Your task to perform on an android device: Check the weather Image 0: 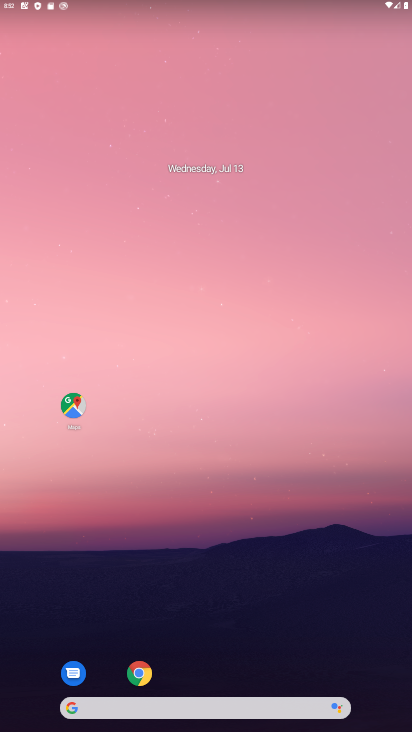
Step 0: click (178, 714)
Your task to perform on an android device: Check the weather Image 1: 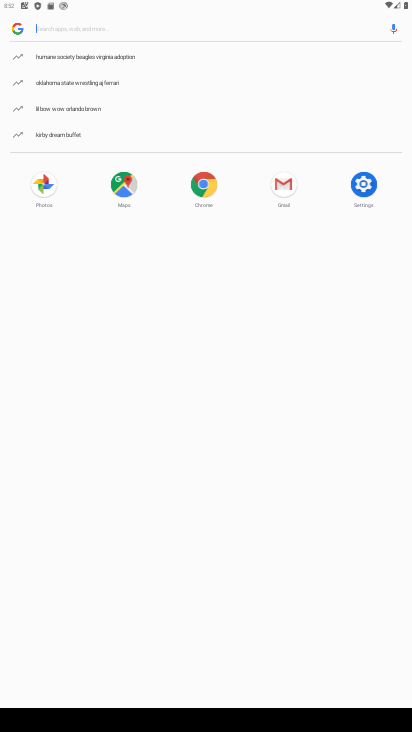
Step 1: click (231, 708)
Your task to perform on an android device: Check the weather Image 2: 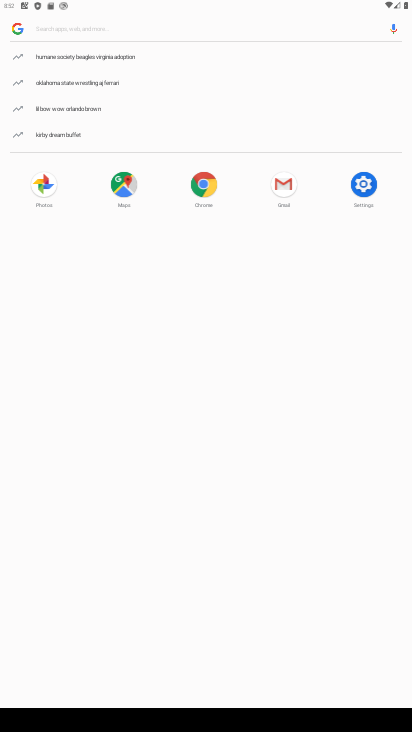
Step 2: type "weather"
Your task to perform on an android device: Check the weather Image 3: 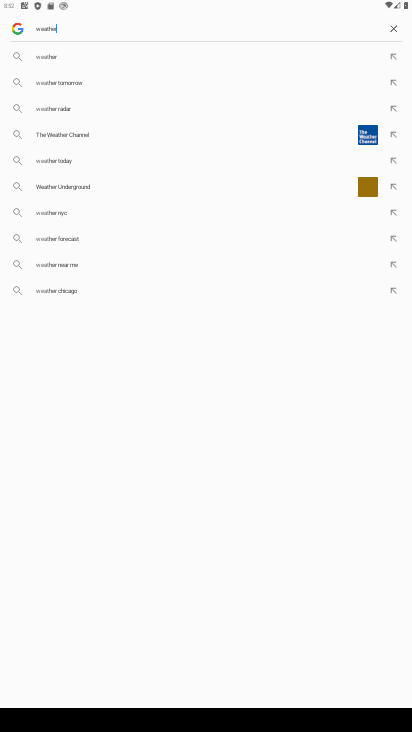
Step 3: type ""
Your task to perform on an android device: Check the weather Image 4: 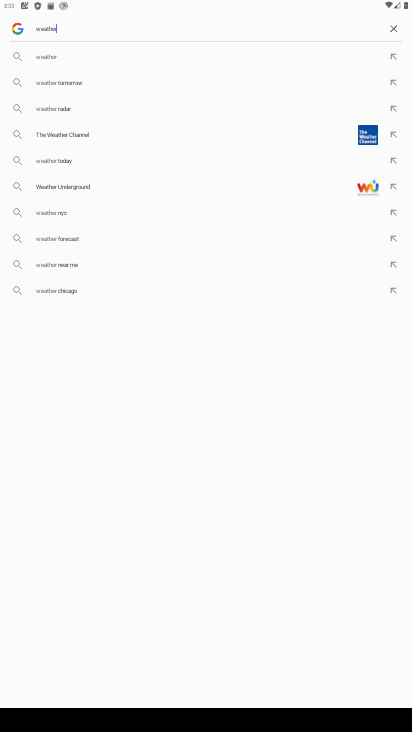
Step 4: click (59, 60)
Your task to perform on an android device: Check the weather Image 5: 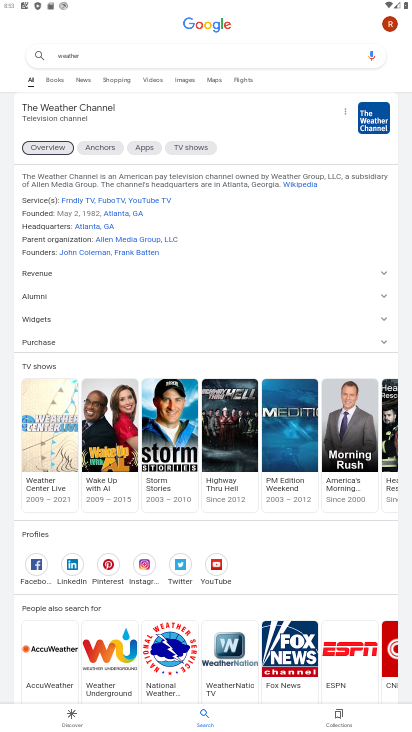
Step 5: task complete